Your task to perform on an android device: open wifi settings Image 0: 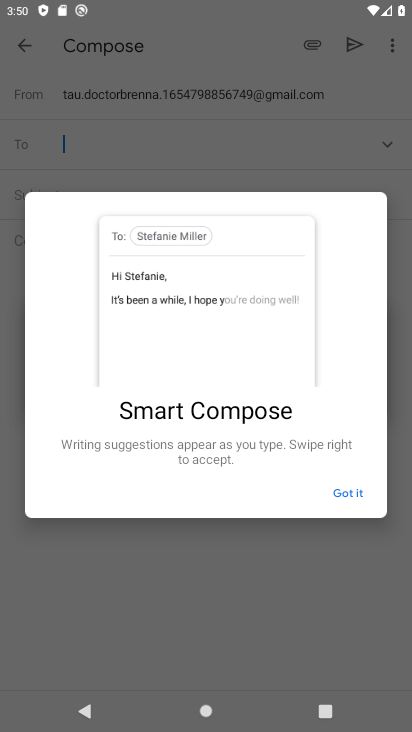
Step 0: press home button
Your task to perform on an android device: open wifi settings Image 1: 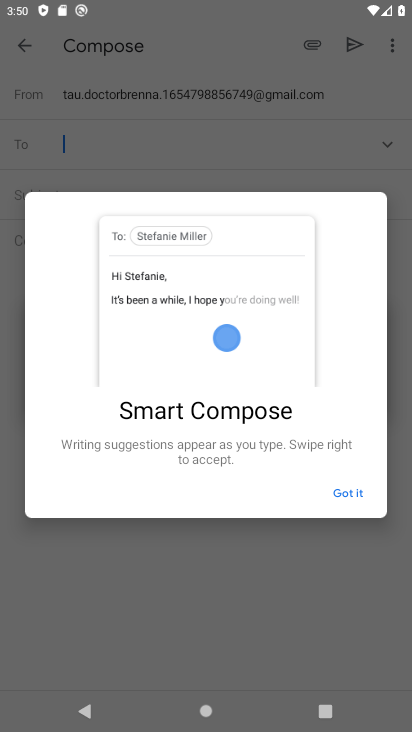
Step 1: press home button
Your task to perform on an android device: open wifi settings Image 2: 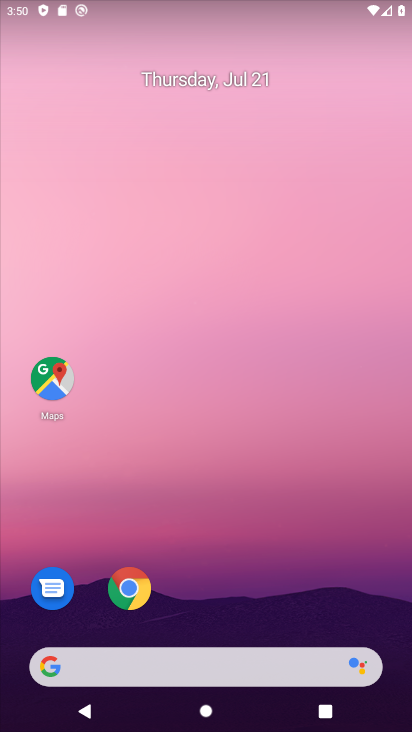
Step 2: drag from (365, 9) to (301, 654)
Your task to perform on an android device: open wifi settings Image 3: 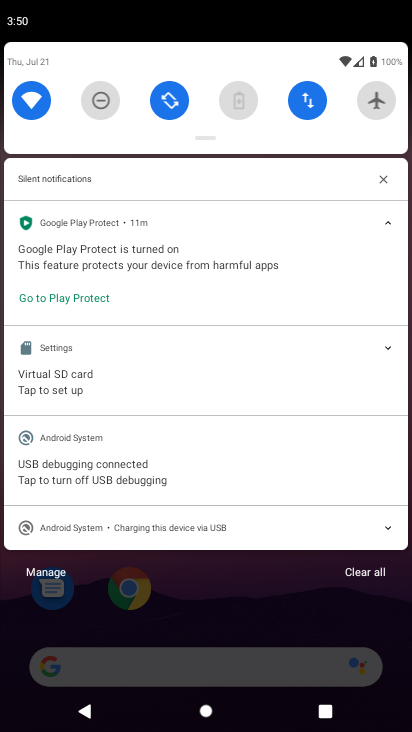
Step 3: click (26, 107)
Your task to perform on an android device: open wifi settings Image 4: 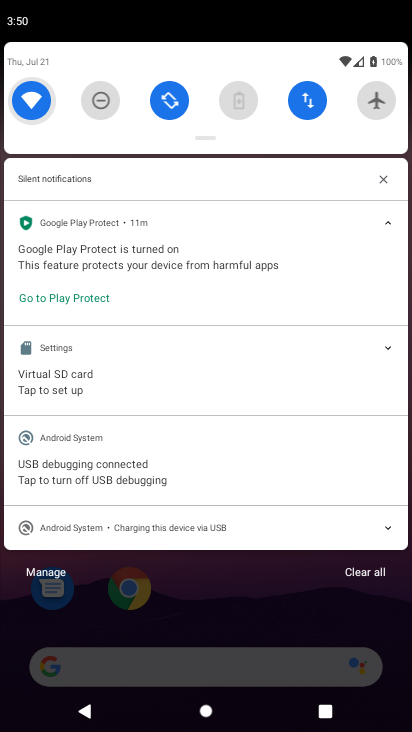
Step 4: click (26, 107)
Your task to perform on an android device: open wifi settings Image 5: 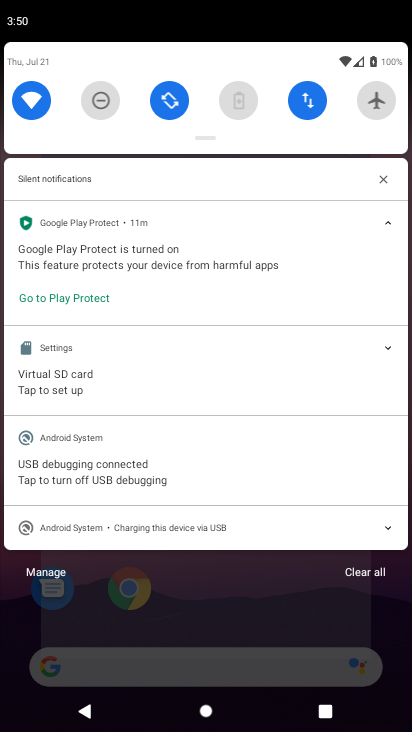
Step 5: click (26, 107)
Your task to perform on an android device: open wifi settings Image 6: 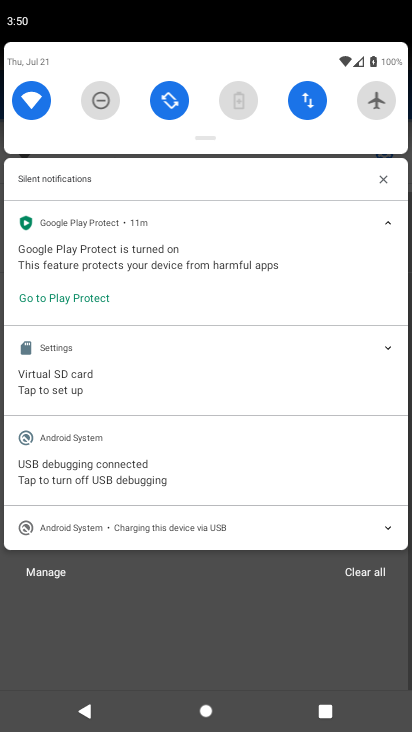
Step 6: click (26, 107)
Your task to perform on an android device: open wifi settings Image 7: 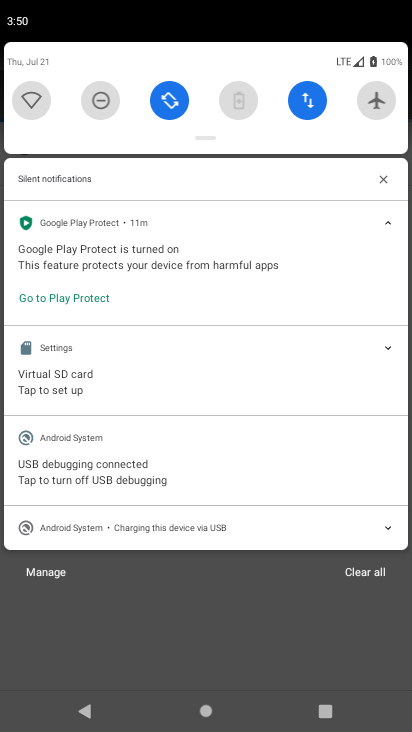
Step 7: click (26, 107)
Your task to perform on an android device: open wifi settings Image 8: 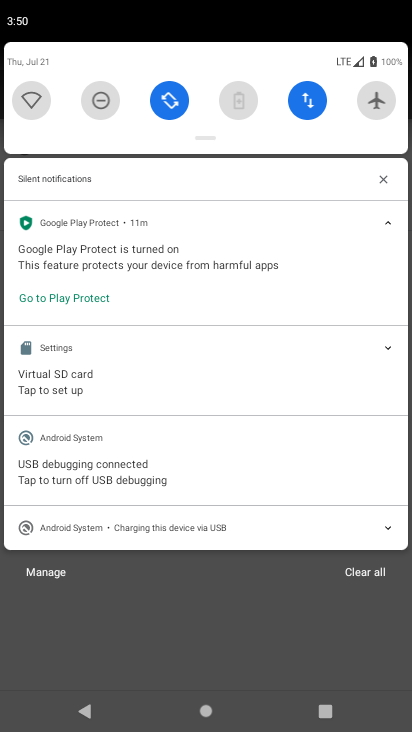
Step 8: click (26, 107)
Your task to perform on an android device: open wifi settings Image 9: 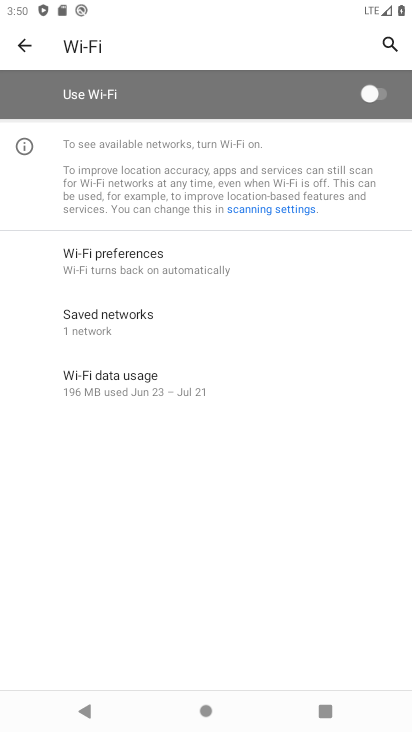
Step 9: click (381, 87)
Your task to perform on an android device: open wifi settings Image 10: 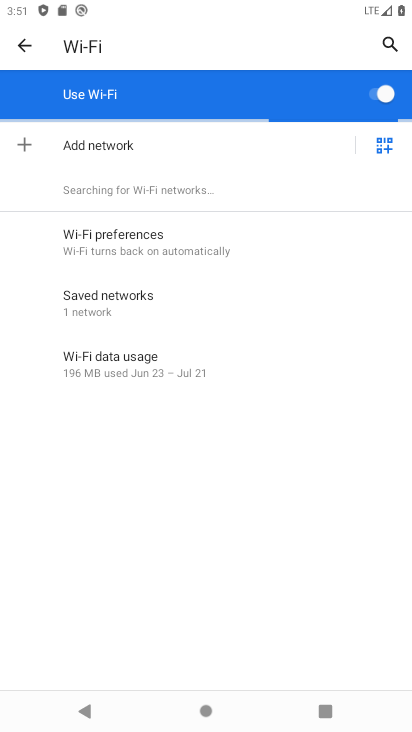
Step 10: task complete